Your task to perform on an android device: open app "Airtel Thanks" (install if not already installed) and enter user name: "acclaimed@inbox.com" and password: "dichotomize" Image 0: 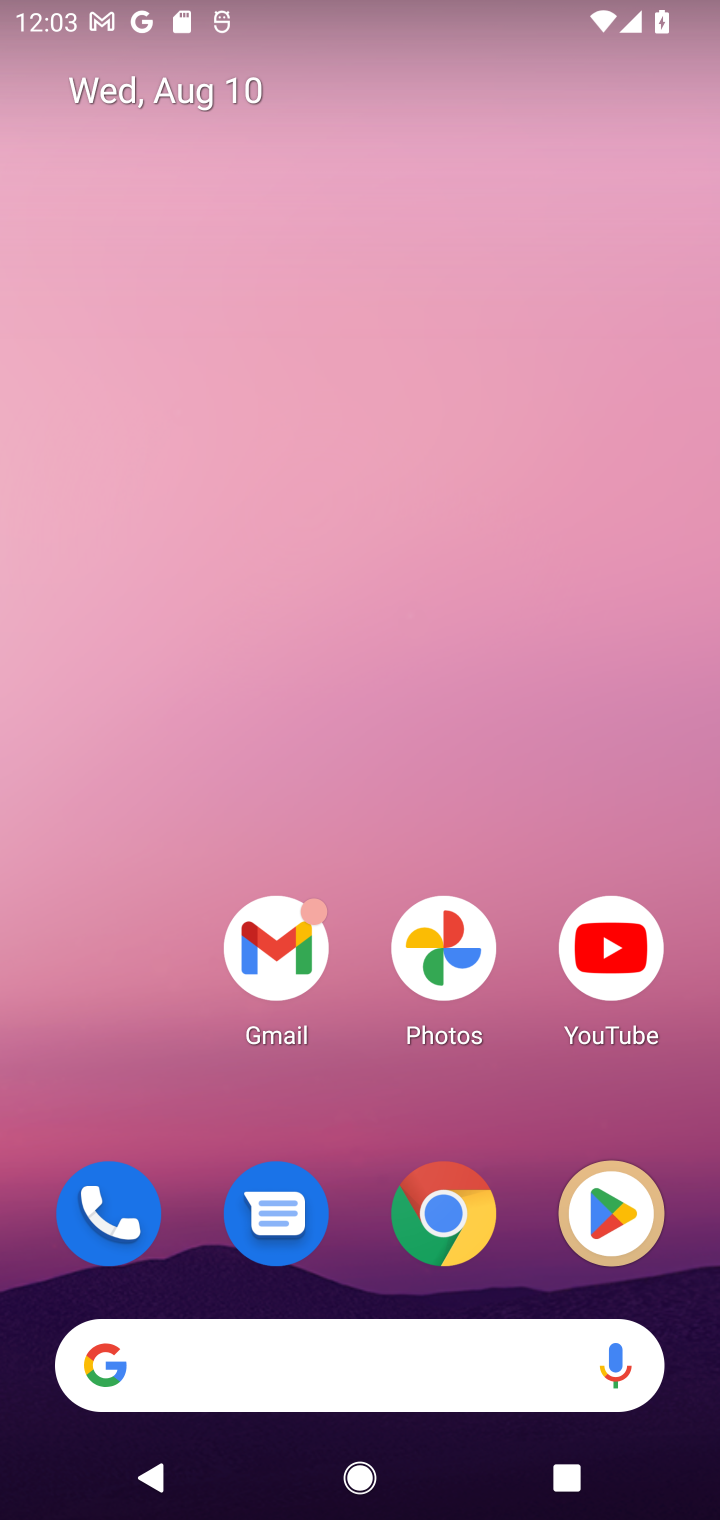
Step 0: drag from (306, 1368) to (289, 219)
Your task to perform on an android device: open app "Airtel Thanks" (install if not already installed) and enter user name: "acclaimed@inbox.com" and password: "dichotomize" Image 1: 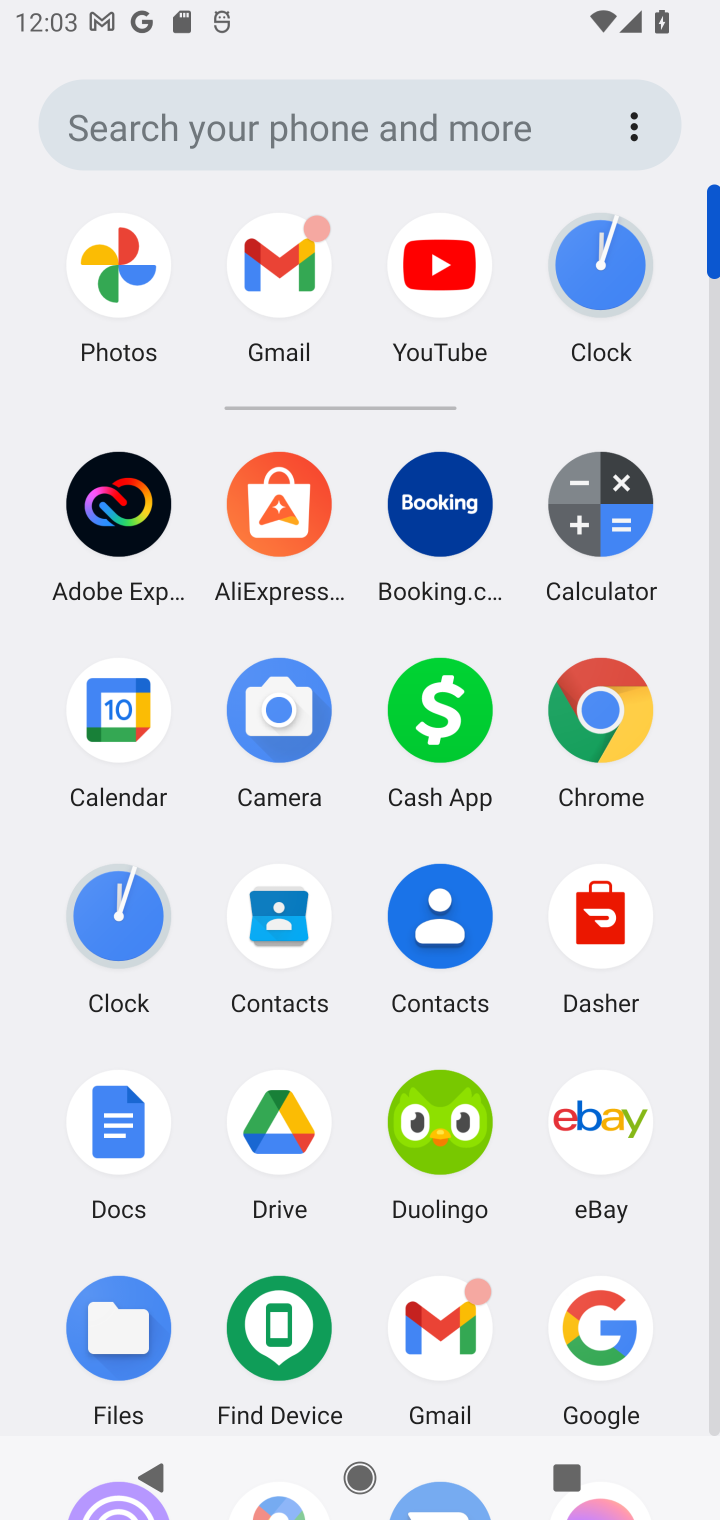
Step 1: drag from (331, 1225) to (352, 704)
Your task to perform on an android device: open app "Airtel Thanks" (install if not already installed) and enter user name: "acclaimed@inbox.com" and password: "dichotomize" Image 2: 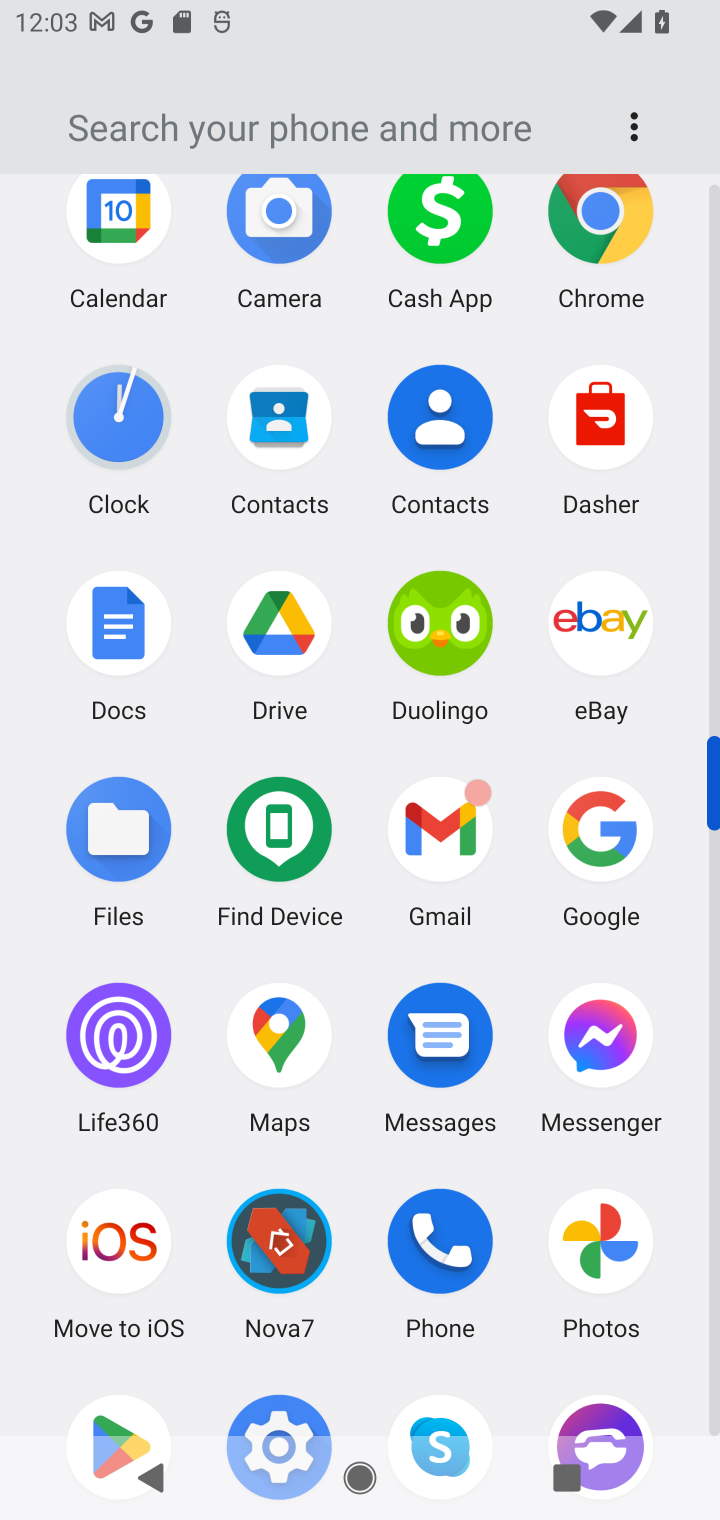
Step 2: drag from (343, 1204) to (386, 849)
Your task to perform on an android device: open app "Airtel Thanks" (install if not already installed) and enter user name: "acclaimed@inbox.com" and password: "dichotomize" Image 3: 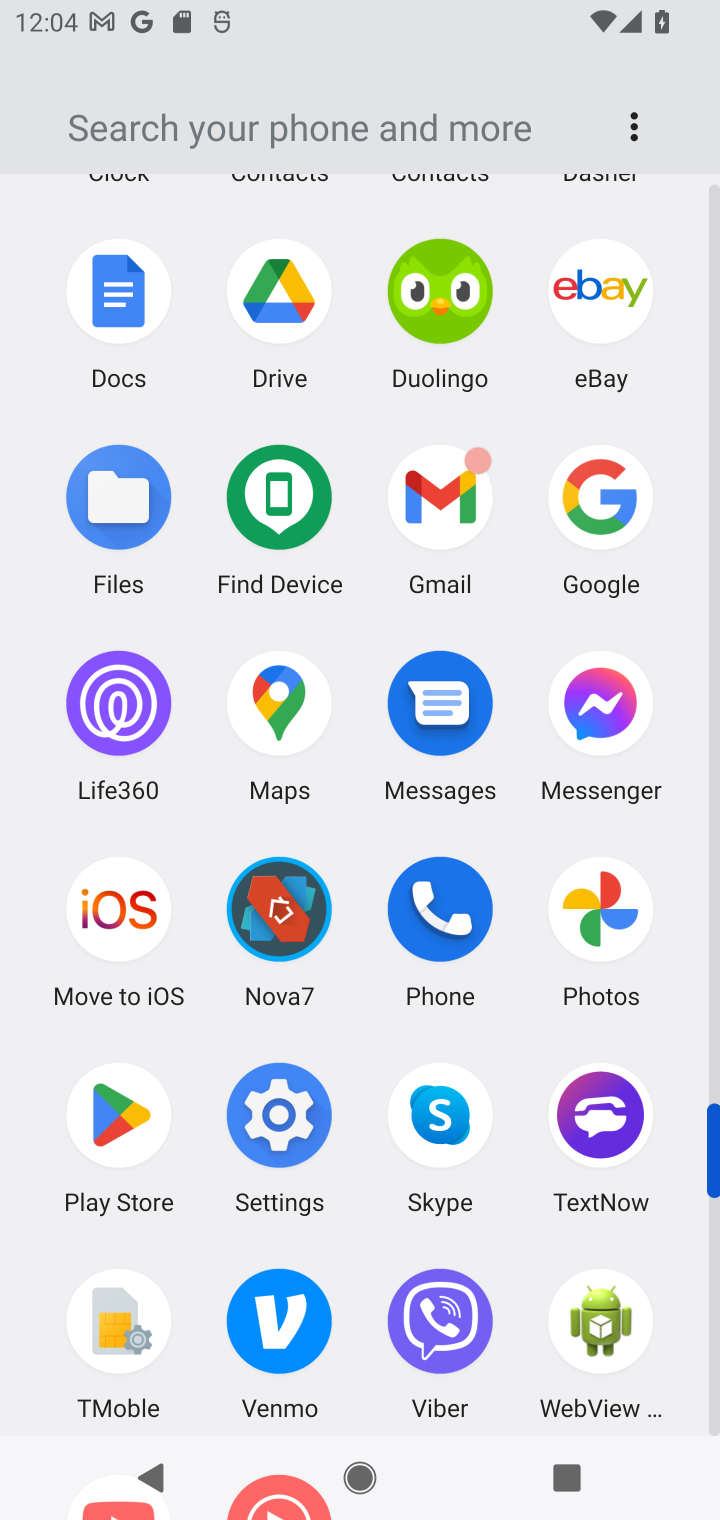
Step 3: click (130, 1126)
Your task to perform on an android device: open app "Airtel Thanks" (install if not already installed) and enter user name: "acclaimed@inbox.com" and password: "dichotomize" Image 4: 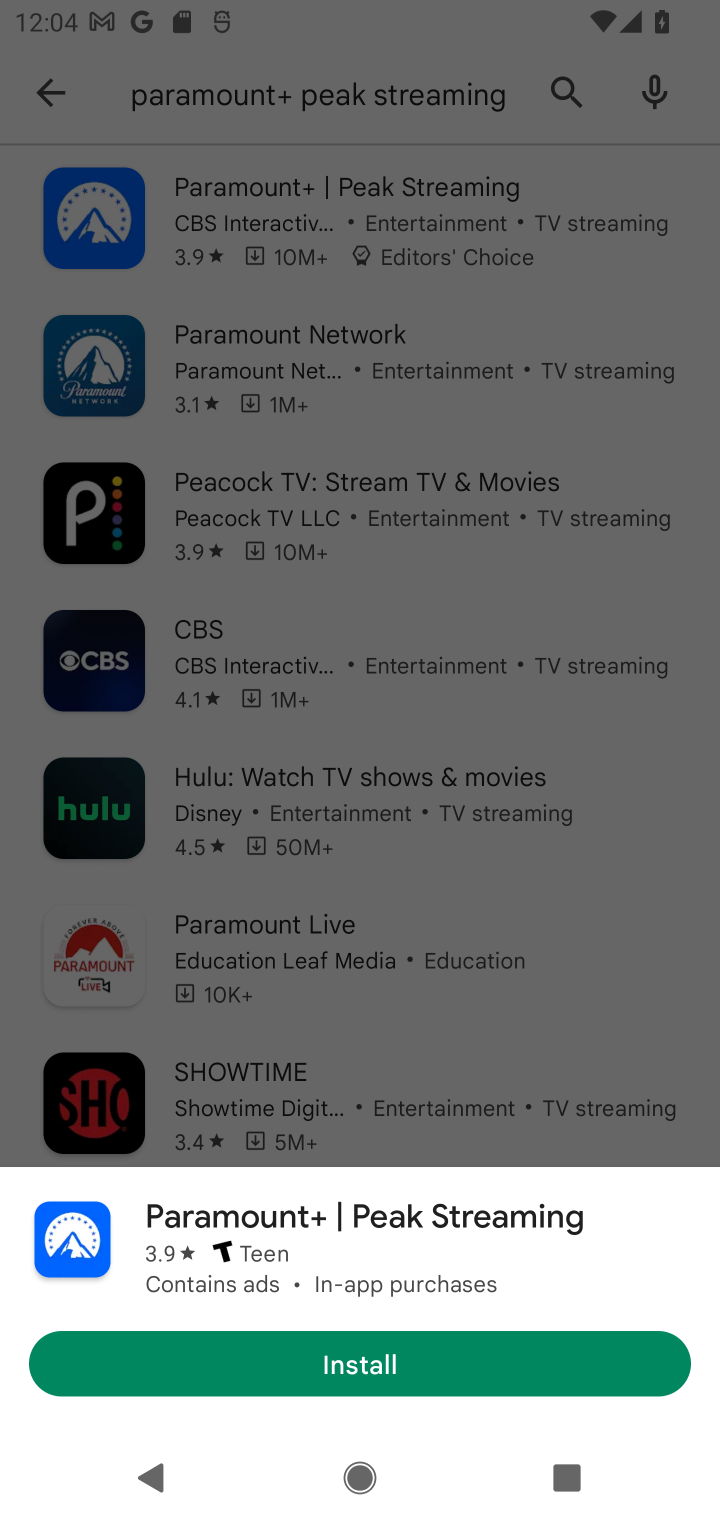
Step 4: press back button
Your task to perform on an android device: open app "Airtel Thanks" (install if not already installed) and enter user name: "acclaimed@inbox.com" and password: "dichotomize" Image 5: 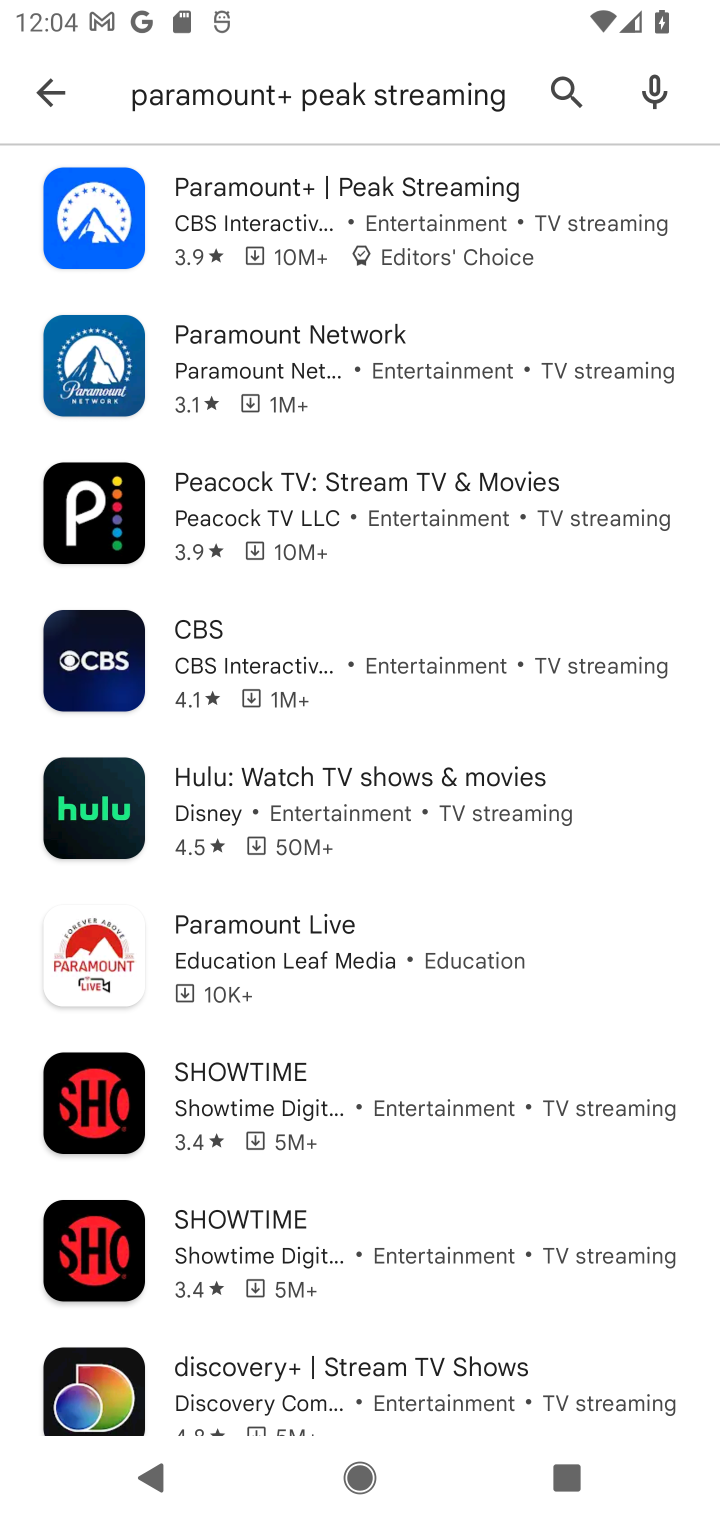
Step 5: press back button
Your task to perform on an android device: open app "Airtel Thanks" (install if not already installed) and enter user name: "acclaimed@inbox.com" and password: "dichotomize" Image 6: 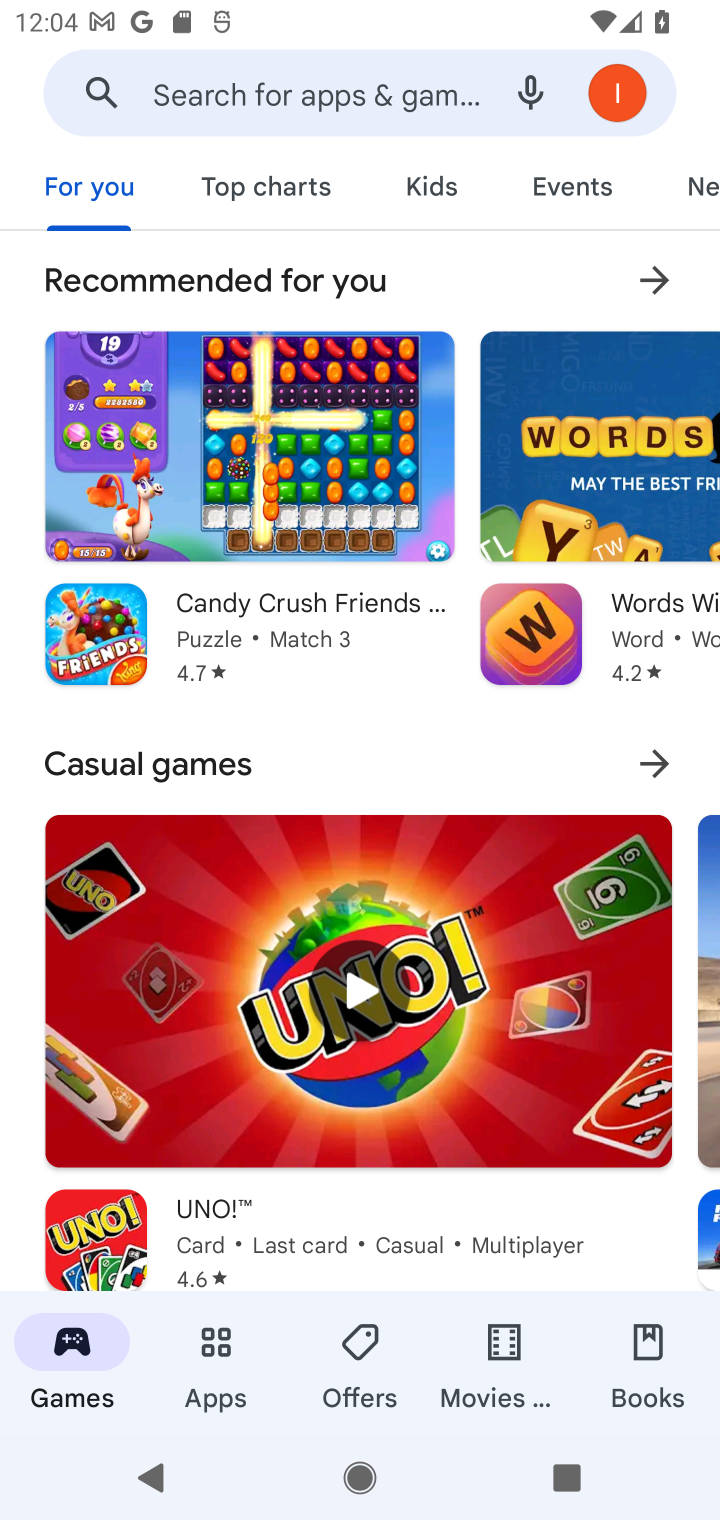
Step 6: click (294, 89)
Your task to perform on an android device: open app "Airtel Thanks" (install if not already installed) and enter user name: "acclaimed@inbox.com" and password: "dichotomize" Image 7: 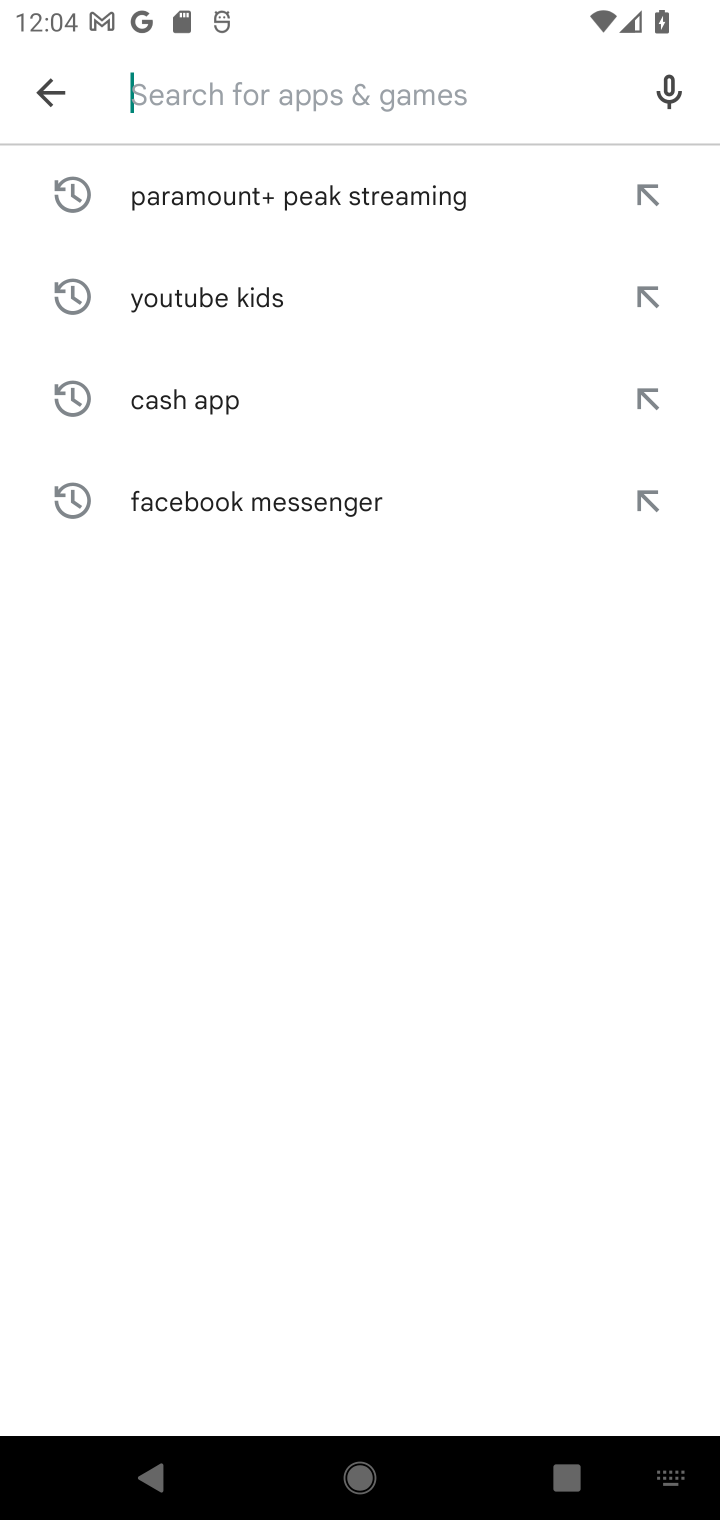
Step 7: type "Airtel Thanks"
Your task to perform on an android device: open app "Airtel Thanks" (install if not already installed) and enter user name: "acclaimed@inbox.com" and password: "dichotomize" Image 8: 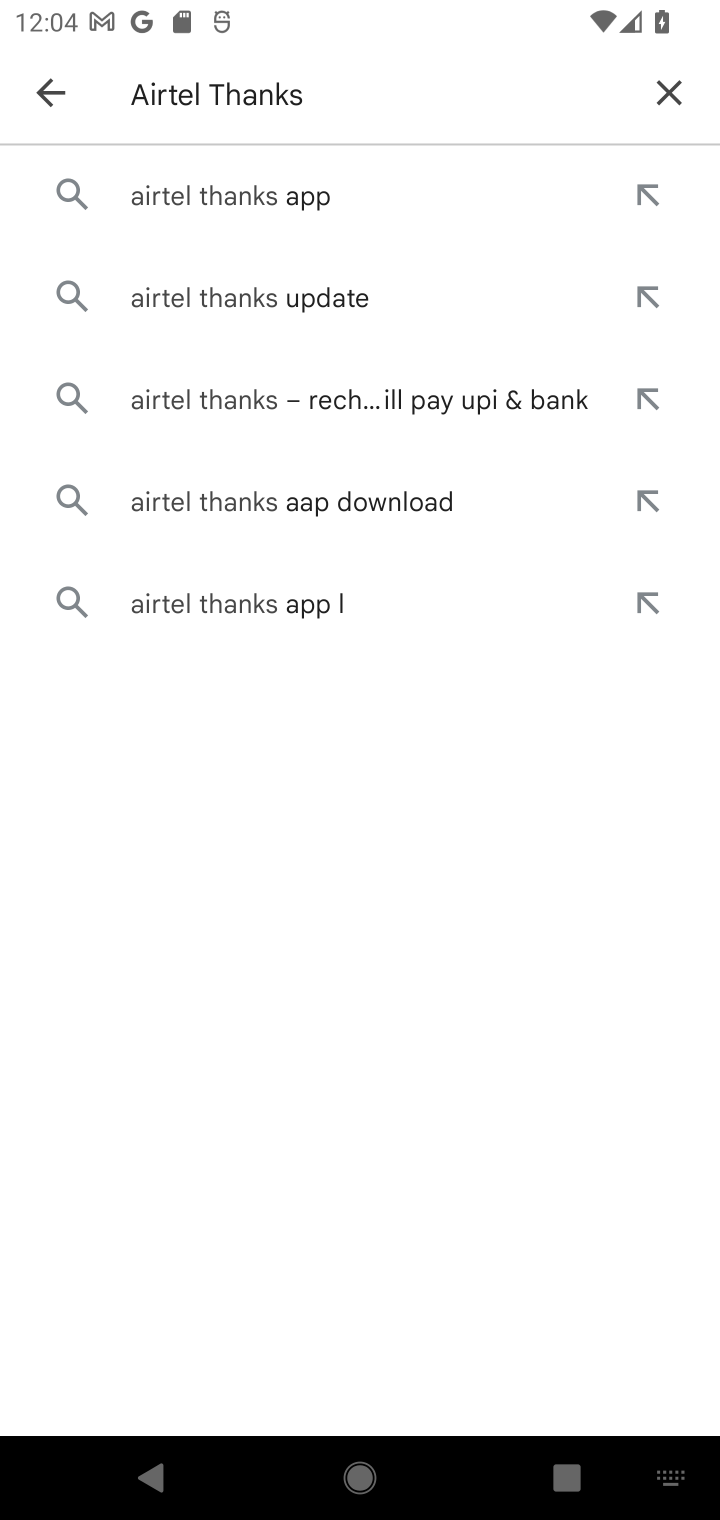
Step 8: click (295, 203)
Your task to perform on an android device: open app "Airtel Thanks" (install if not already installed) and enter user name: "acclaimed@inbox.com" and password: "dichotomize" Image 9: 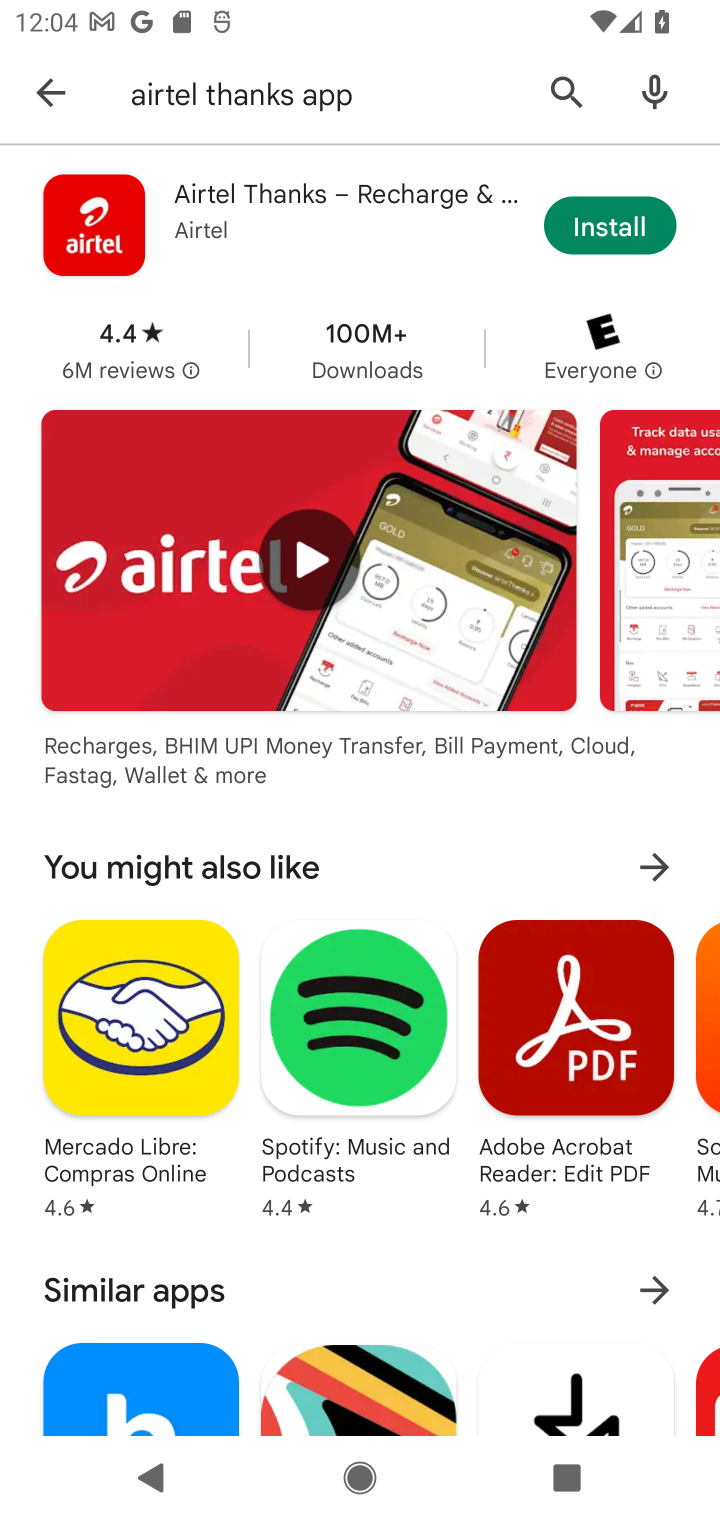
Step 9: click (617, 232)
Your task to perform on an android device: open app "Airtel Thanks" (install if not already installed) and enter user name: "acclaimed@inbox.com" and password: "dichotomize" Image 10: 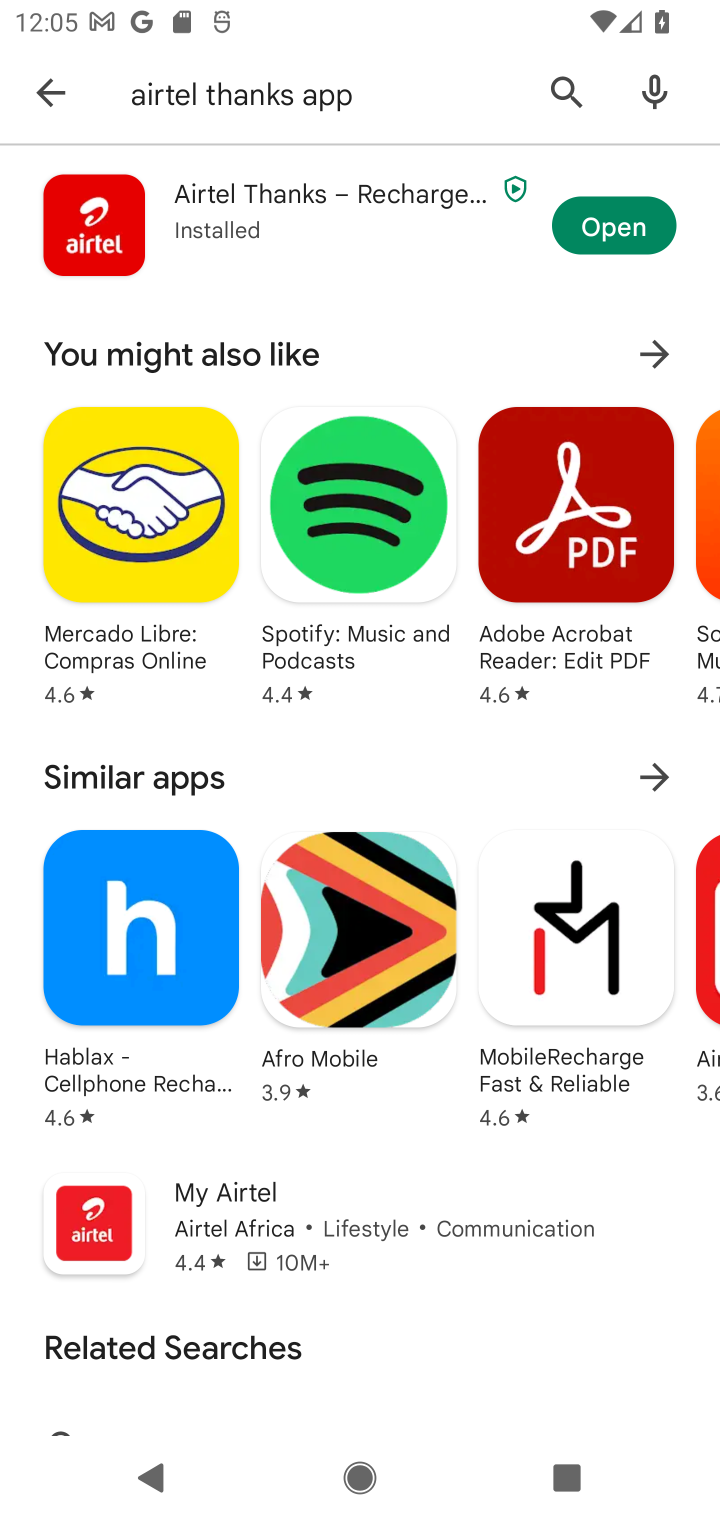
Step 10: click (612, 234)
Your task to perform on an android device: open app "Airtel Thanks" (install if not already installed) and enter user name: "acclaimed@inbox.com" and password: "dichotomize" Image 11: 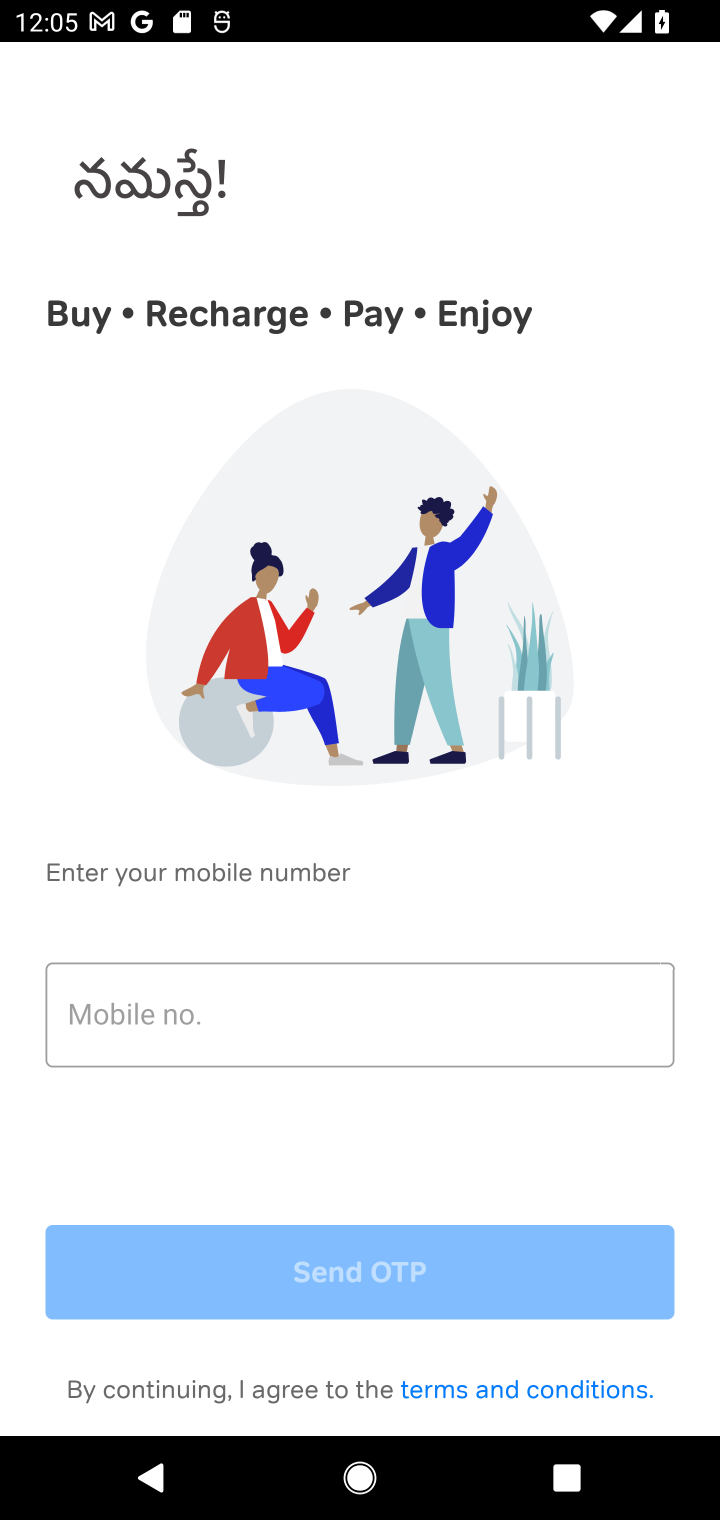
Step 11: drag from (299, 1048) to (348, 437)
Your task to perform on an android device: open app "Airtel Thanks" (install if not already installed) and enter user name: "acclaimed@inbox.com" and password: "dichotomize" Image 12: 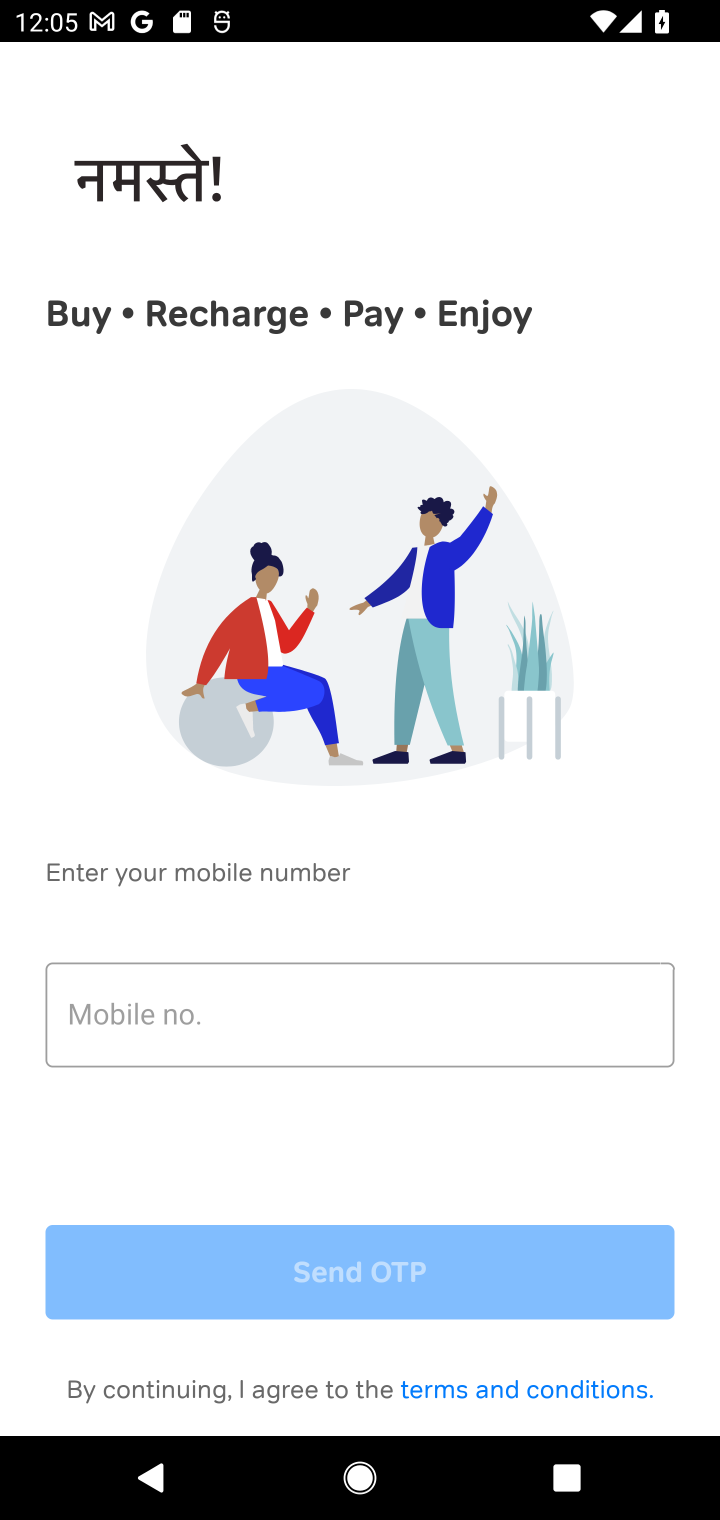
Step 12: click (226, 1009)
Your task to perform on an android device: open app "Airtel Thanks" (install if not already installed) and enter user name: "acclaimed@inbox.com" and password: "dichotomize" Image 13: 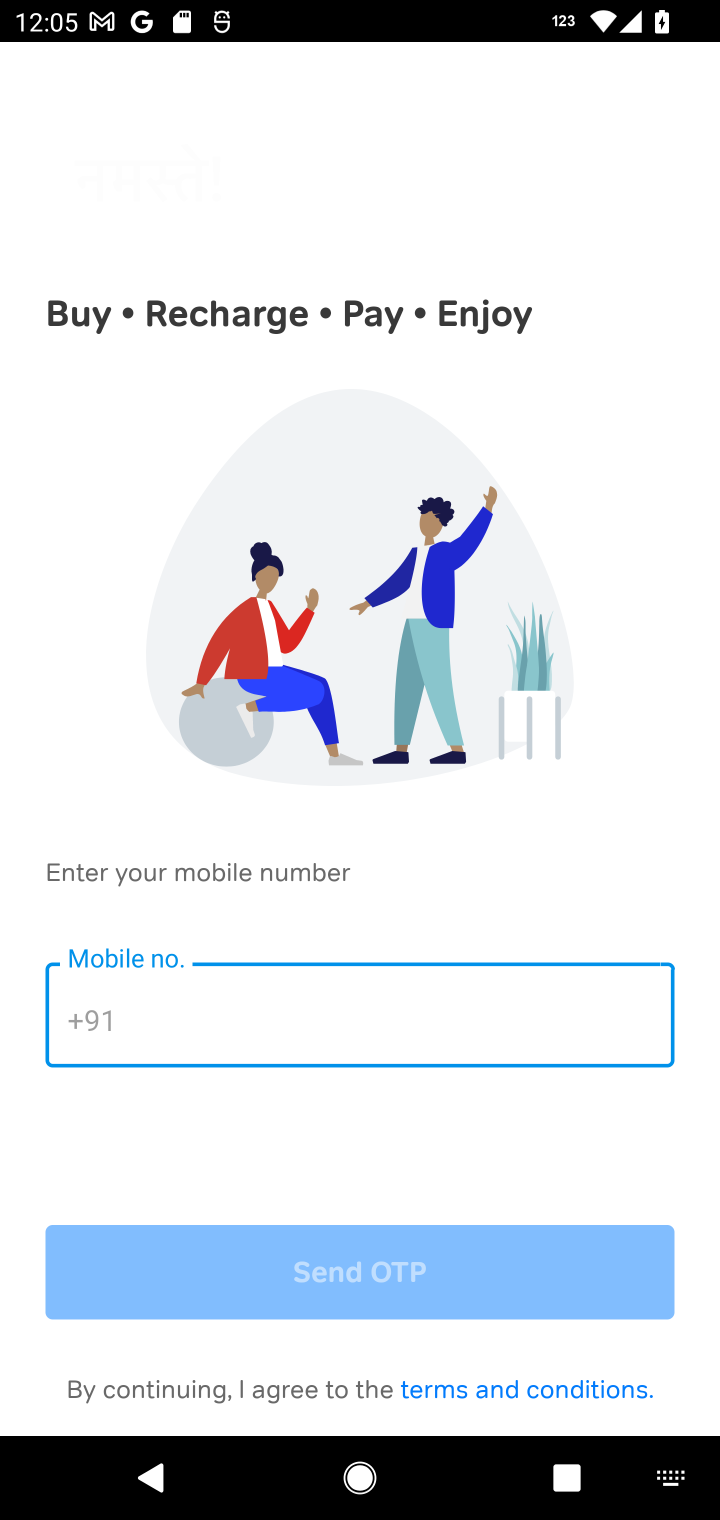
Step 13: type "acclaimed@inbox.com"
Your task to perform on an android device: open app "Airtel Thanks" (install if not already installed) and enter user name: "acclaimed@inbox.com" and password: "dichotomize" Image 14: 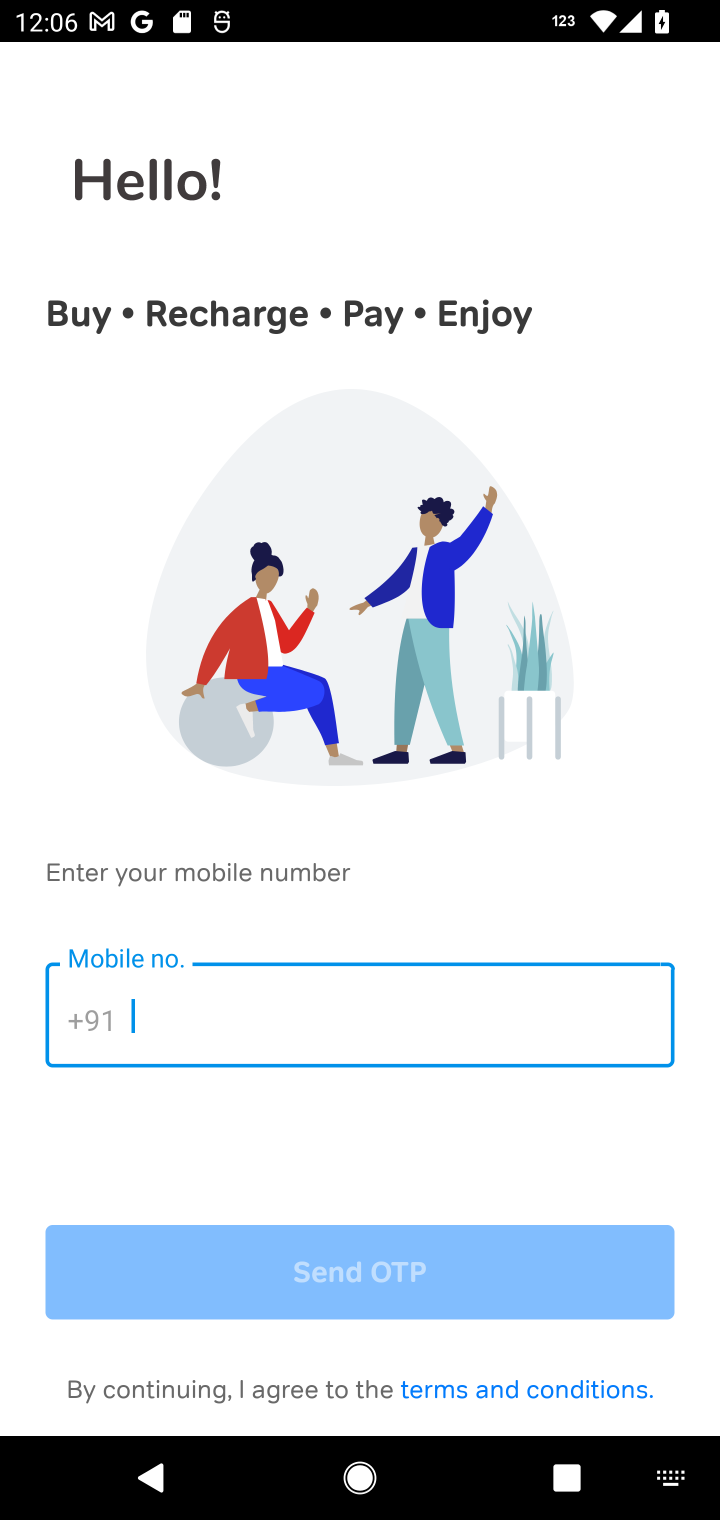
Step 14: press back button
Your task to perform on an android device: open app "Airtel Thanks" (install if not already installed) and enter user name: "acclaimed@inbox.com" and password: "dichotomize" Image 15: 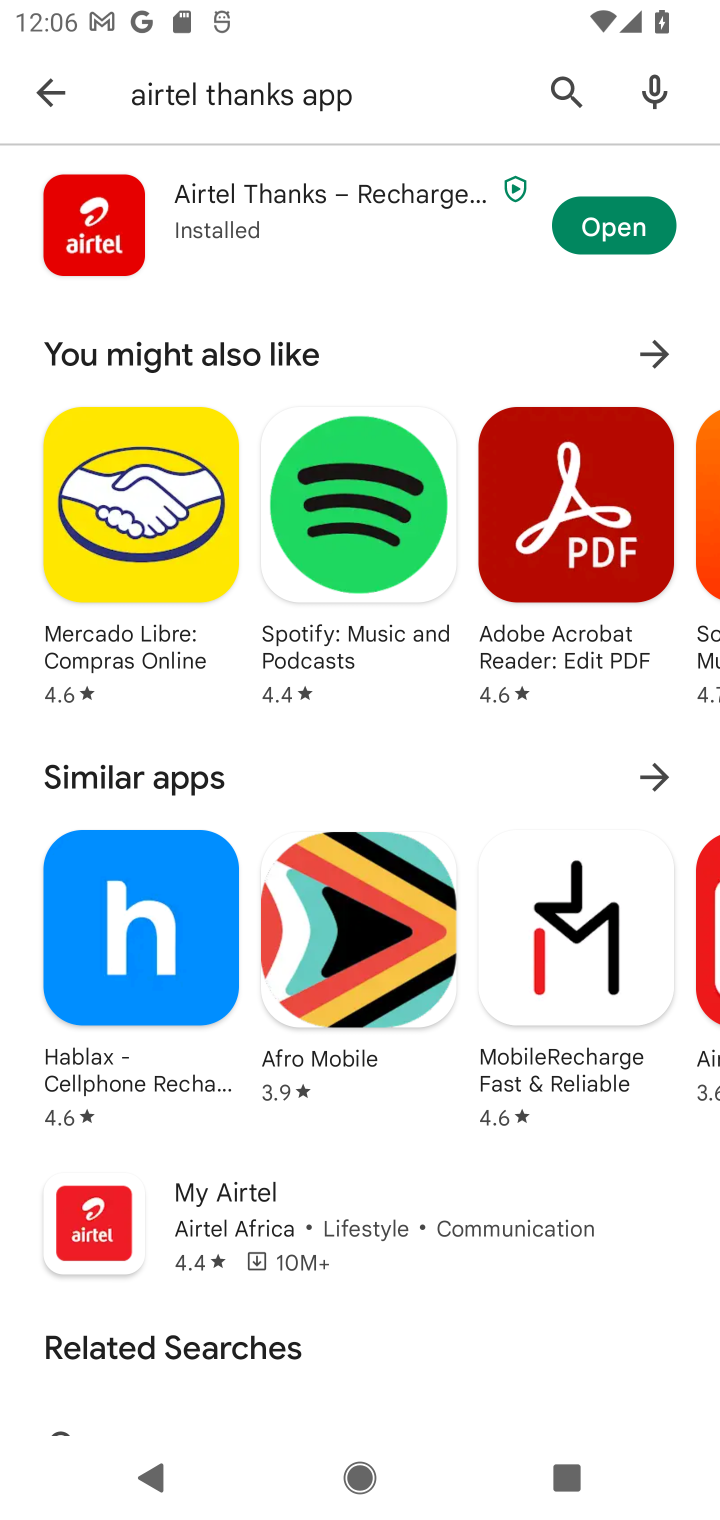
Step 15: click (605, 227)
Your task to perform on an android device: open app "Airtel Thanks" (install if not already installed) and enter user name: "acclaimed@inbox.com" and password: "dichotomize" Image 16: 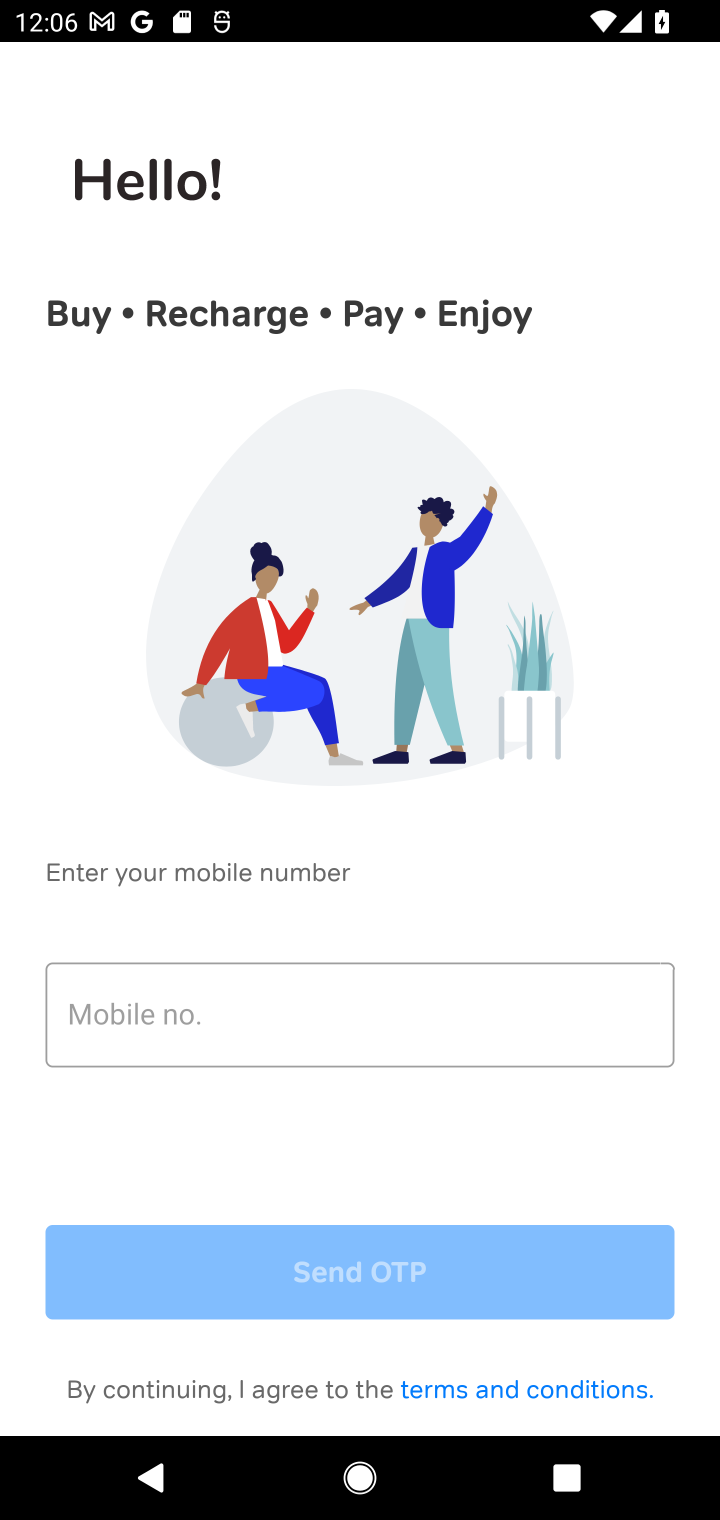
Step 16: task complete